Your task to perform on an android device: turn off airplane mode Image 0: 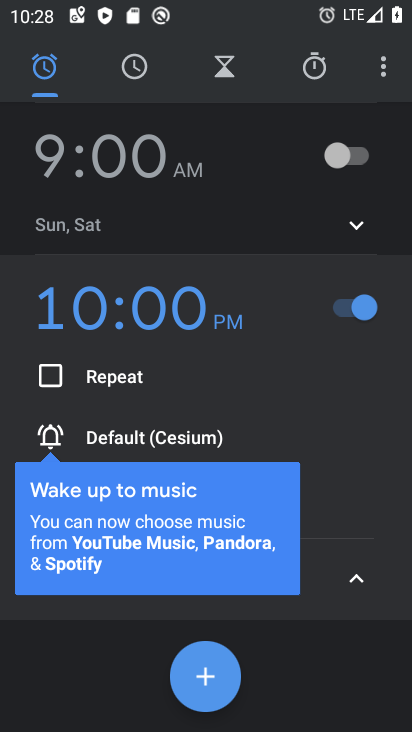
Step 0: press home button
Your task to perform on an android device: turn off airplane mode Image 1: 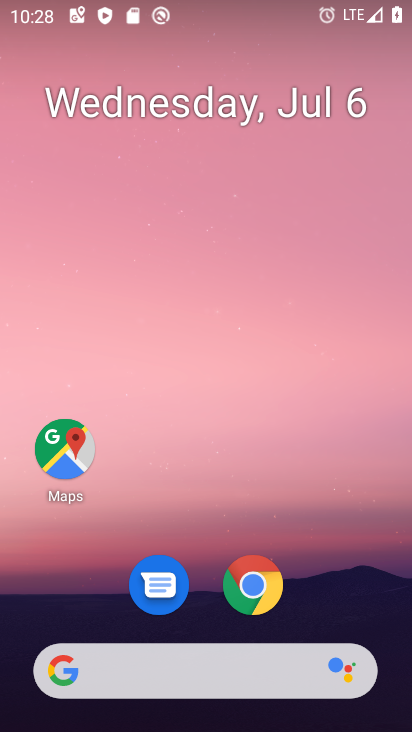
Step 1: drag from (234, 458) to (295, 0)
Your task to perform on an android device: turn off airplane mode Image 2: 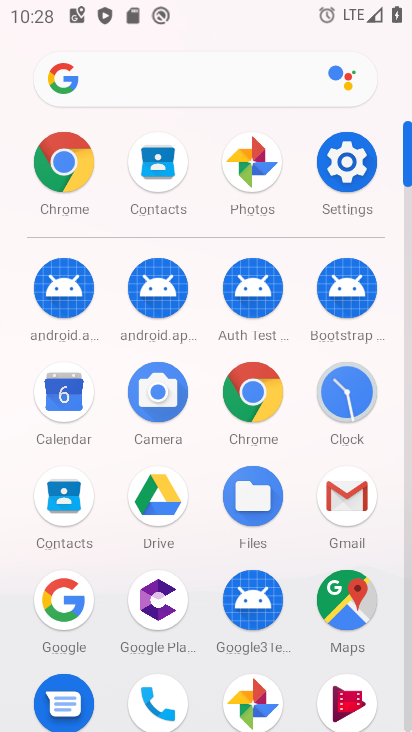
Step 2: click (366, 159)
Your task to perform on an android device: turn off airplane mode Image 3: 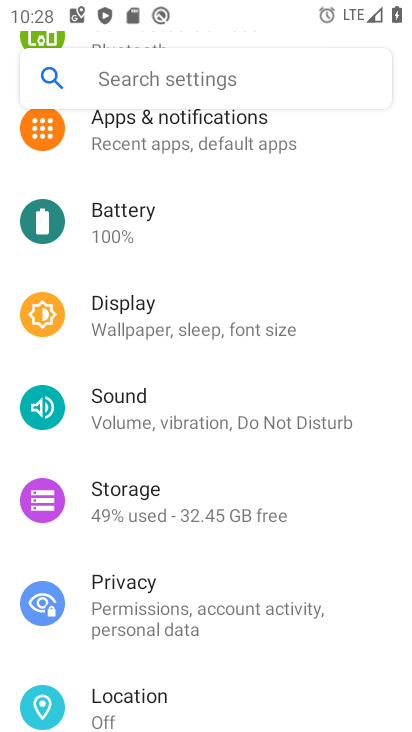
Step 3: drag from (222, 182) to (227, 660)
Your task to perform on an android device: turn off airplane mode Image 4: 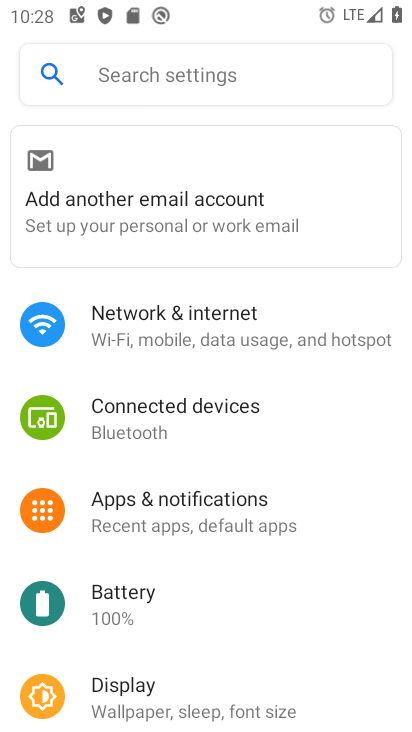
Step 4: click (201, 324)
Your task to perform on an android device: turn off airplane mode Image 5: 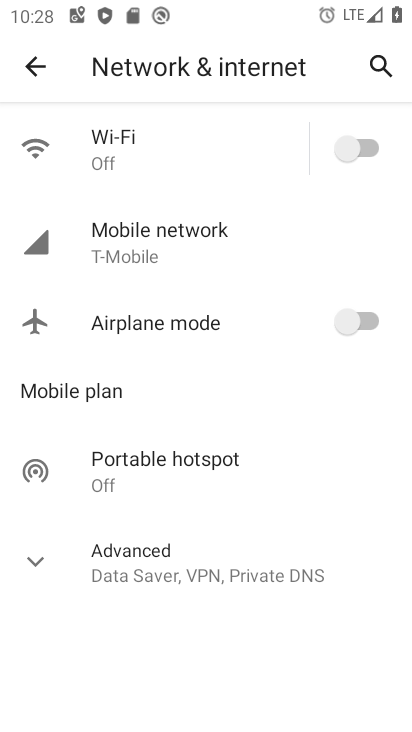
Step 5: click (368, 313)
Your task to perform on an android device: turn off airplane mode Image 6: 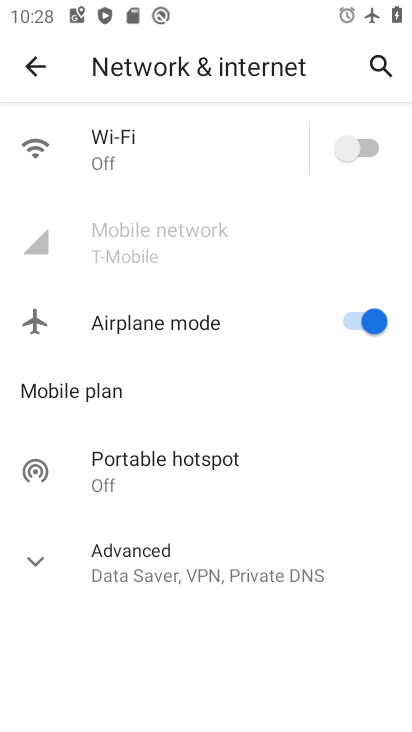
Step 6: click (356, 315)
Your task to perform on an android device: turn off airplane mode Image 7: 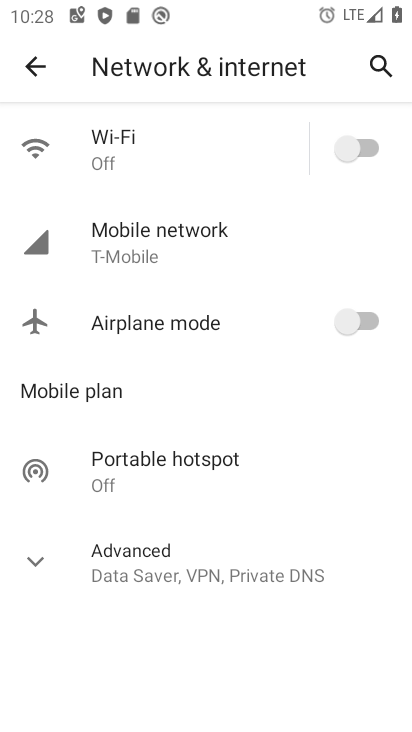
Step 7: task complete